Your task to perform on an android device: check out phone information Image 0: 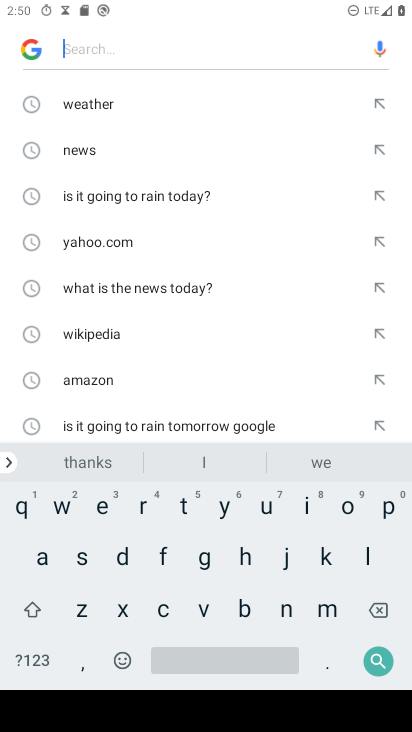
Step 0: press home button
Your task to perform on an android device: check out phone information Image 1: 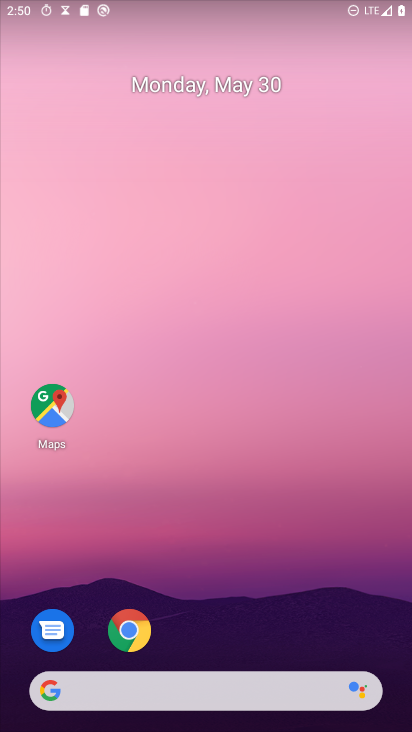
Step 1: drag from (243, 694) to (246, 208)
Your task to perform on an android device: check out phone information Image 2: 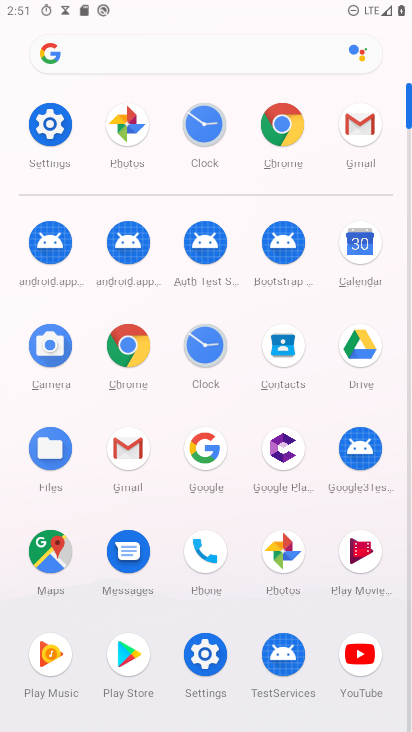
Step 2: click (206, 647)
Your task to perform on an android device: check out phone information Image 3: 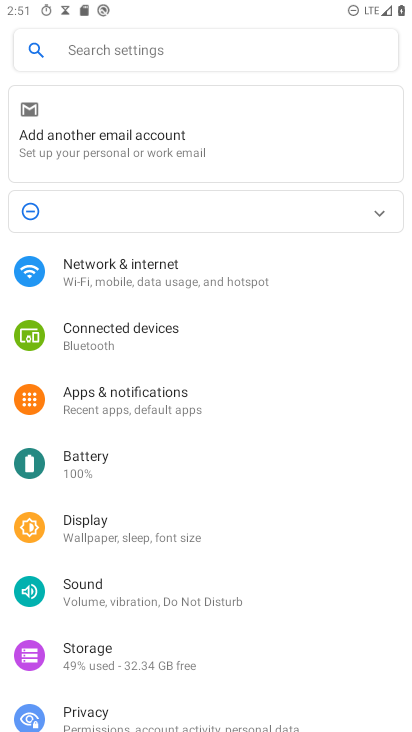
Step 3: click (110, 36)
Your task to perform on an android device: check out phone information Image 4: 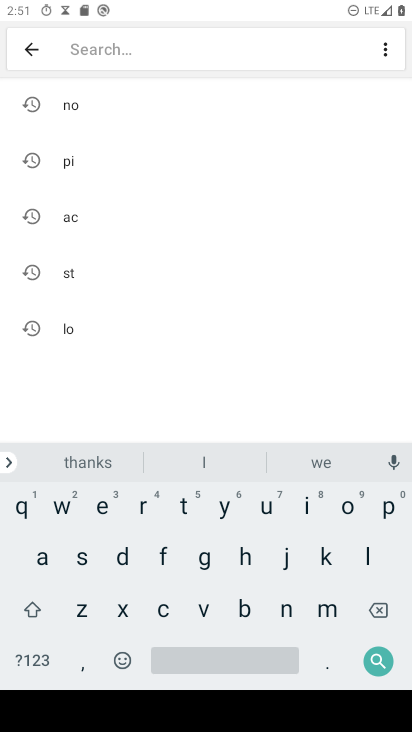
Step 4: click (44, 563)
Your task to perform on an android device: check out phone information Image 5: 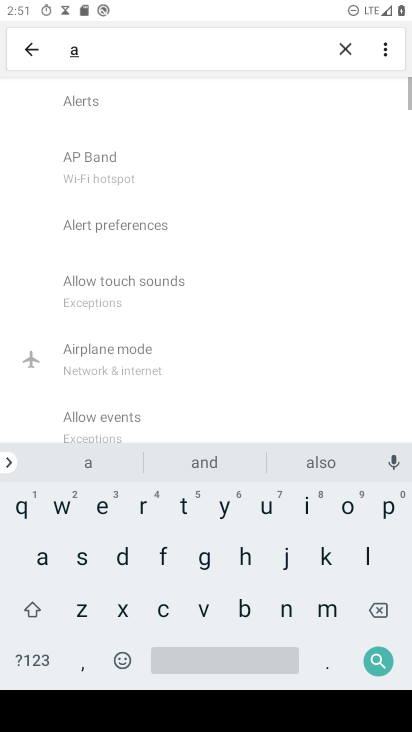
Step 5: click (244, 609)
Your task to perform on an android device: check out phone information Image 6: 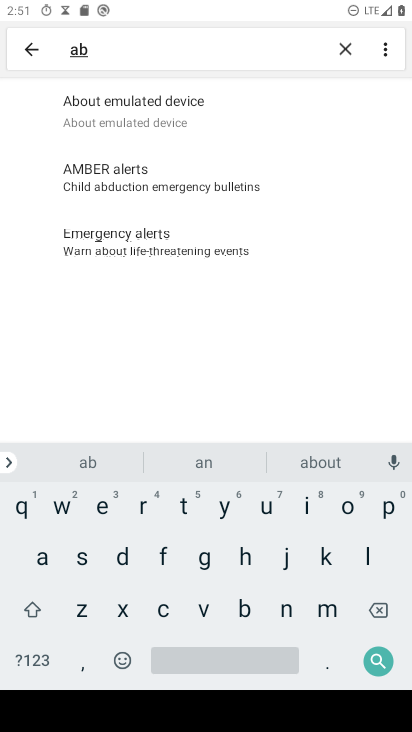
Step 6: click (148, 114)
Your task to perform on an android device: check out phone information Image 7: 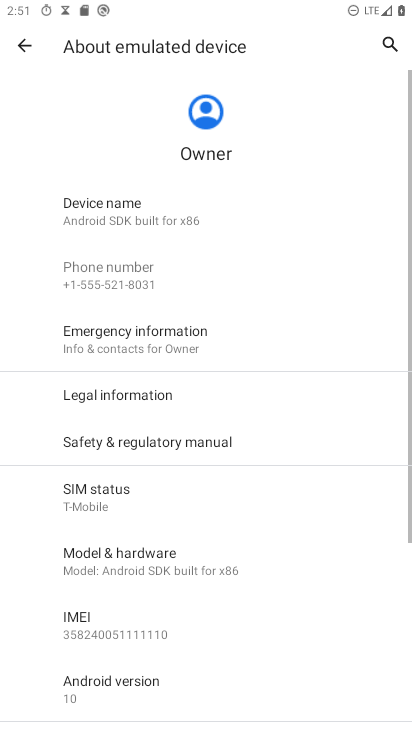
Step 7: task complete